Your task to perform on an android device: check battery use Image 0: 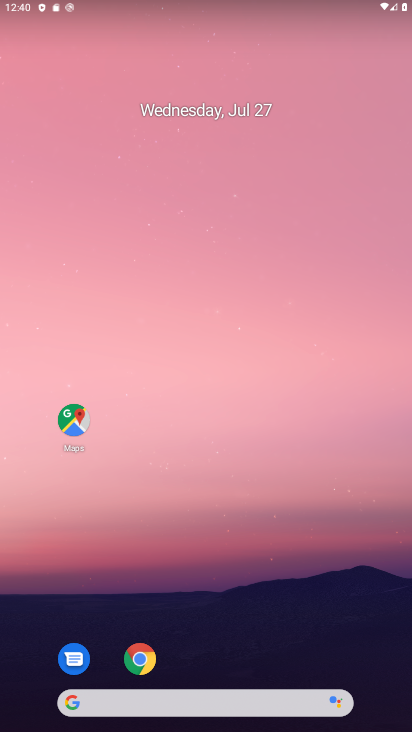
Step 0: drag from (338, 559) to (266, 88)
Your task to perform on an android device: check battery use Image 1: 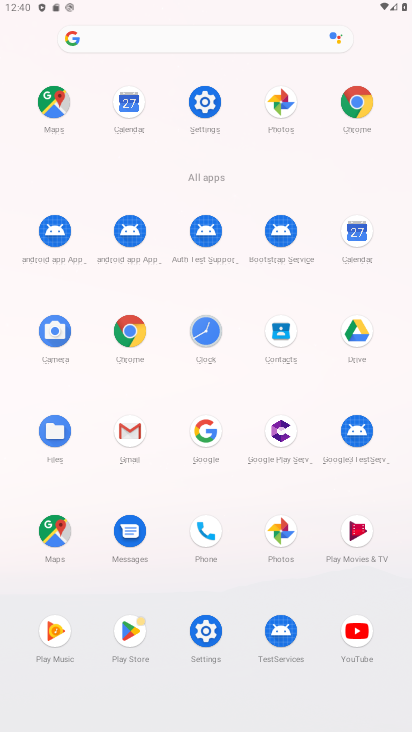
Step 1: click (221, 102)
Your task to perform on an android device: check battery use Image 2: 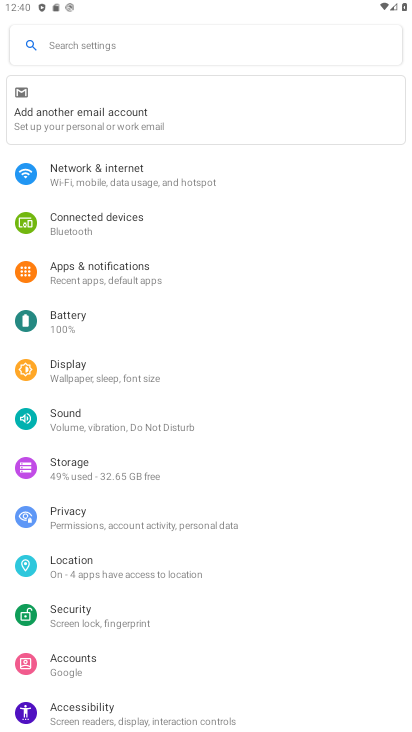
Step 2: click (92, 327)
Your task to perform on an android device: check battery use Image 3: 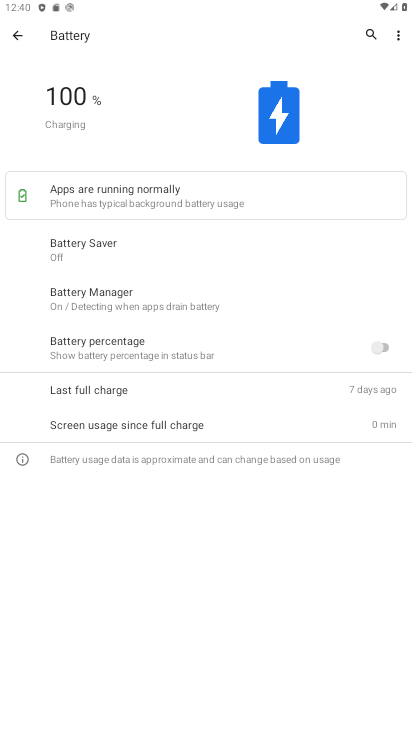
Step 3: click (402, 28)
Your task to perform on an android device: check battery use Image 4: 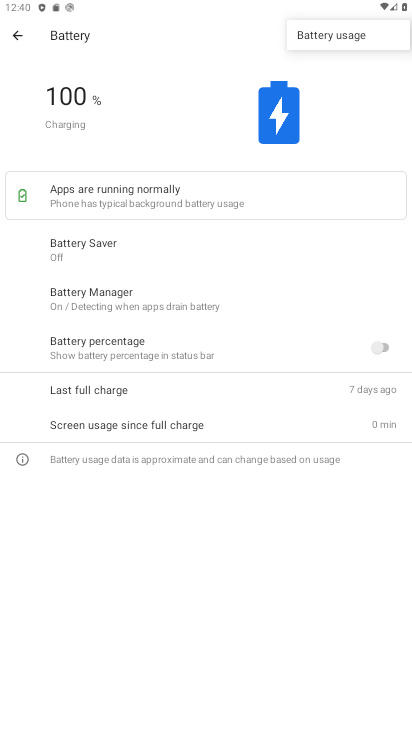
Step 4: click (346, 34)
Your task to perform on an android device: check battery use Image 5: 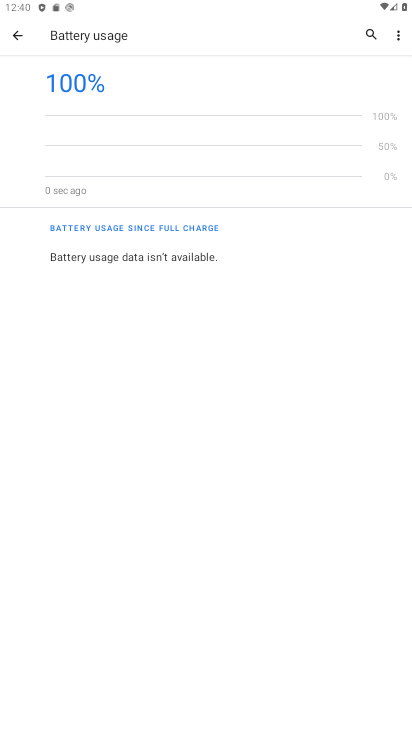
Step 5: task complete